Your task to perform on an android device: find which apps use the phone's location Image 0: 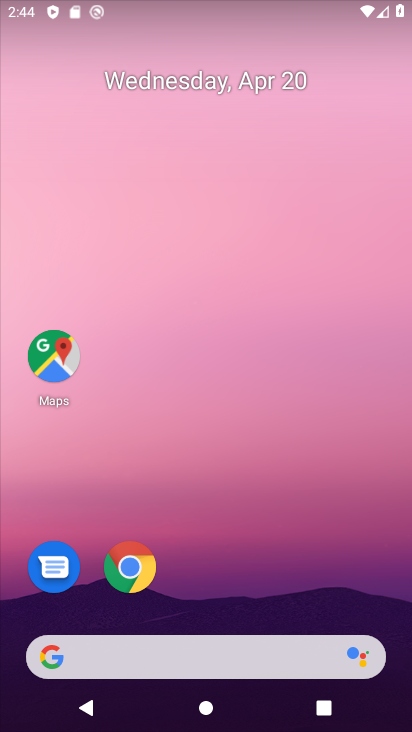
Step 0: drag from (214, 402) to (206, 5)
Your task to perform on an android device: find which apps use the phone's location Image 1: 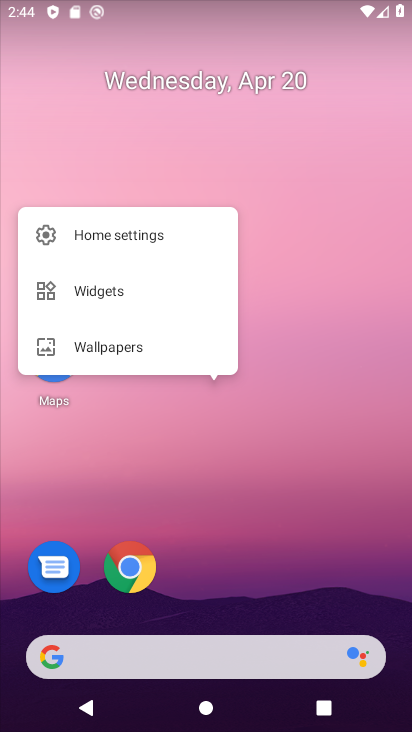
Step 1: drag from (243, 587) to (294, 58)
Your task to perform on an android device: find which apps use the phone's location Image 2: 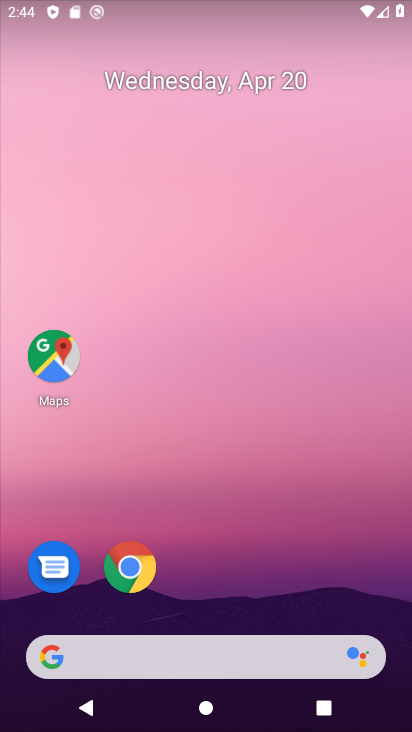
Step 2: drag from (239, 617) to (300, 44)
Your task to perform on an android device: find which apps use the phone's location Image 3: 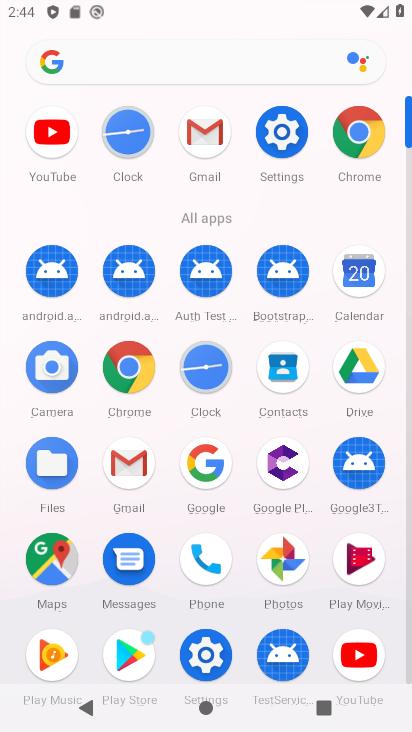
Step 3: click (278, 155)
Your task to perform on an android device: find which apps use the phone's location Image 4: 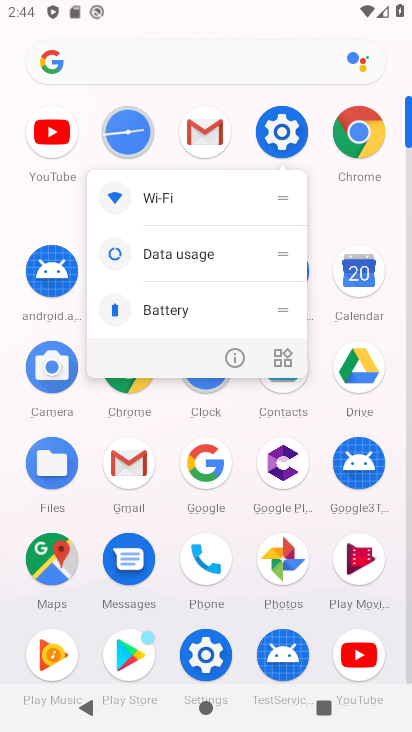
Step 4: click (293, 126)
Your task to perform on an android device: find which apps use the phone's location Image 5: 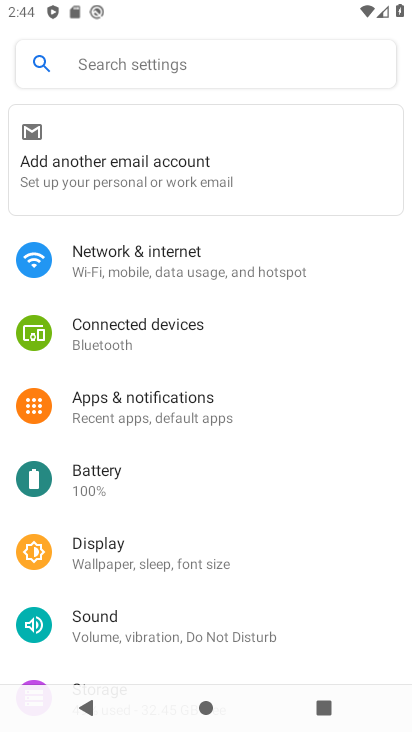
Step 5: drag from (154, 579) to (173, 255)
Your task to perform on an android device: find which apps use the phone's location Image 6: 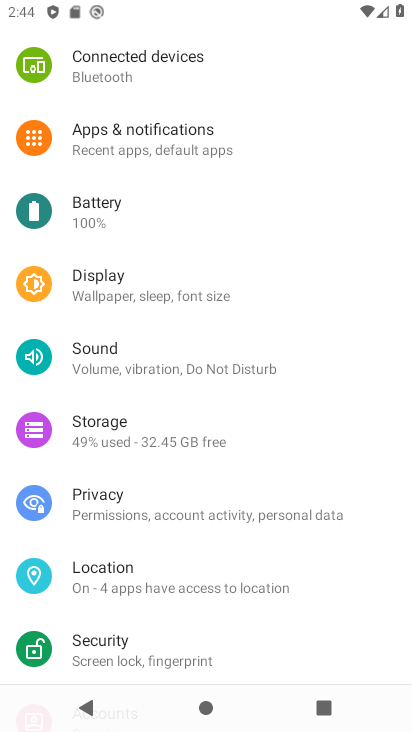
Step 6: click (118, 585)
Your task to perform on an android device: find which apps use the phone's location Image 7: 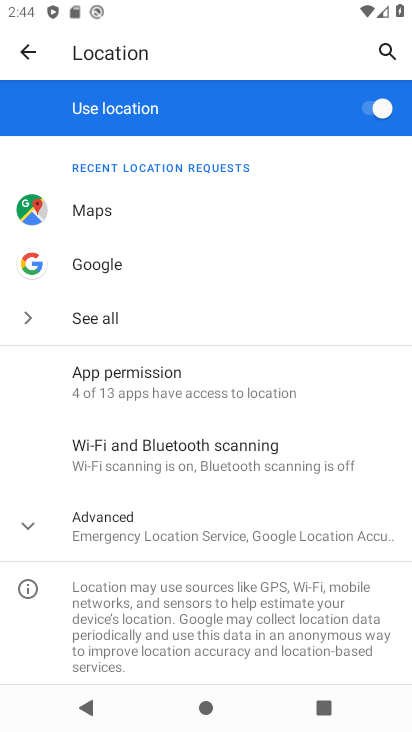
Step 7: click (160, 393)
Your task to perform on an android device: find which apps use the phone's location Image 8: 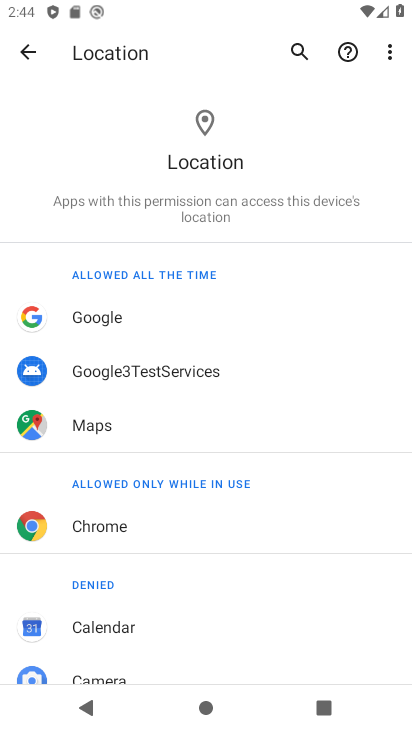
Step 8: task complete